Your task to perform on an android device: Open the web browser Image 0: 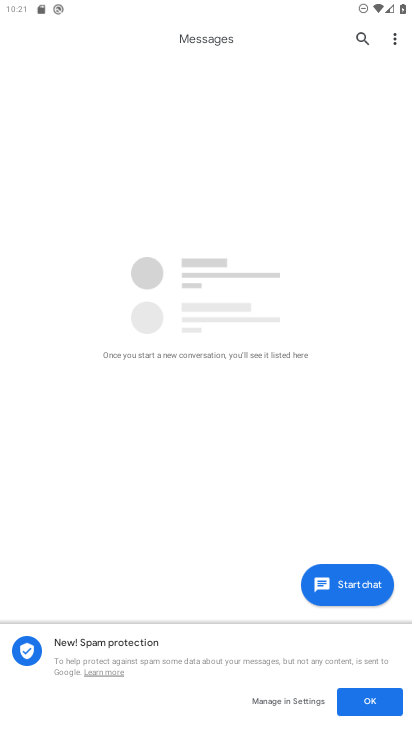
Step 0: press back button
Your task to perform on an android device: Open the web browser Image 1: 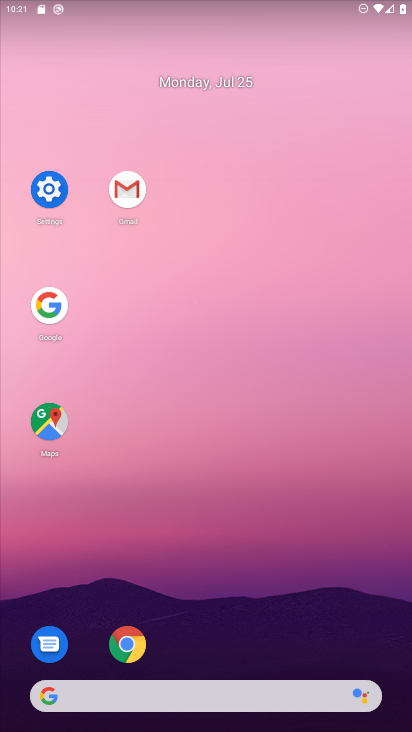
Step 1: click (134, 640)
Your task to perform on an android device: Open the web browser Image 2: 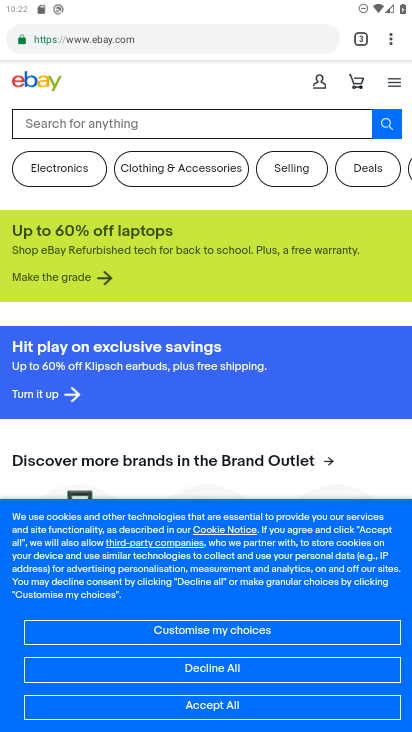
Step 2: task complete